Your task to perform on an android device: check the backup settings in the google photos Image 0: 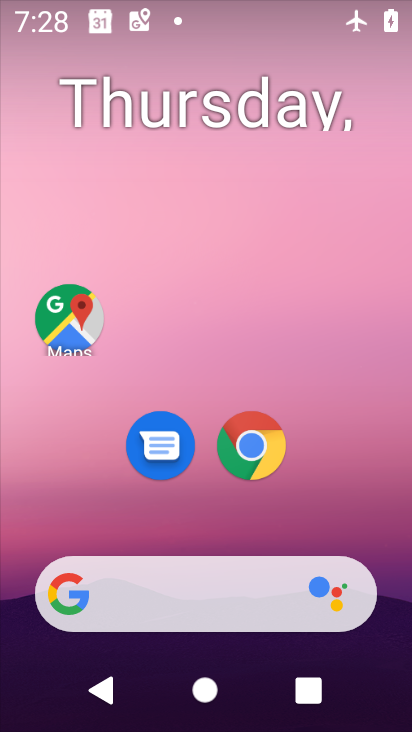
Step 0: drag from (377, 623) to (316, 50)
Your task to perform on an android device: check the backup settings in the google photos Image 1: 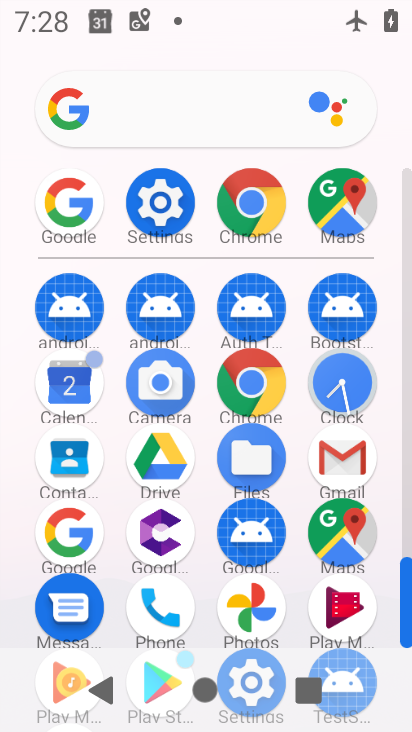
Step 1: click (245, 586)
Your task to perform on an android device: check the backup settings in the google photos Image 2: 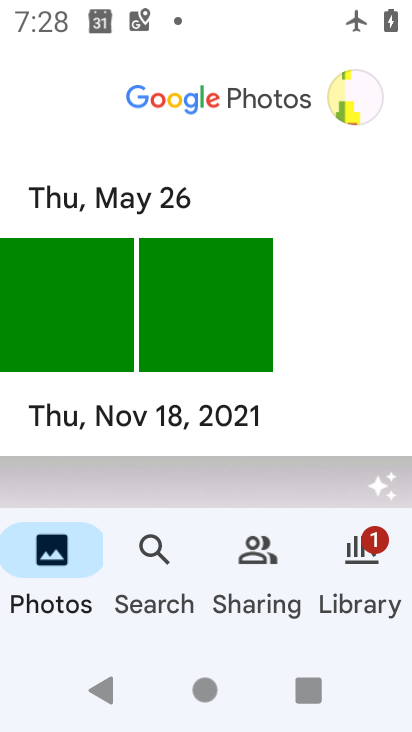
Step 2: click (350, 115)
Your task to perform on an android device: check the backup settings in the google photos Image 3: 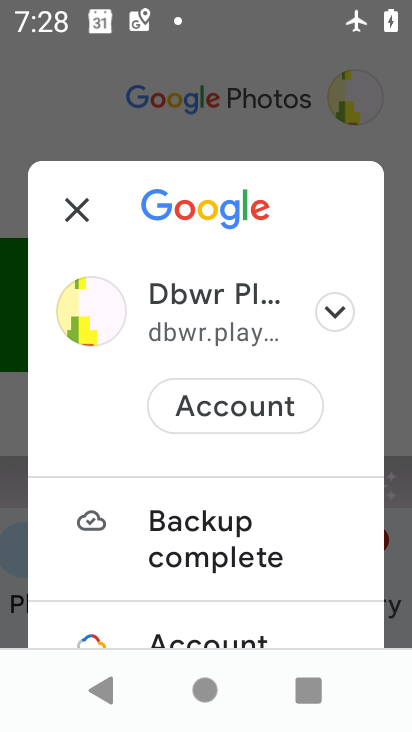
Step 3: click (176, 527)
Your task to perform on an android device: check the backup settings in the google photos Image 4: 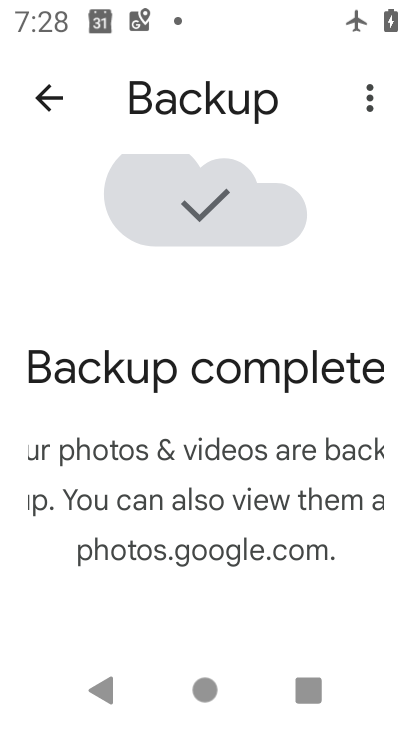
Step 4: click (368, 103)
Your task to perform on an android device: check the backup settings in the google photos Image 5: 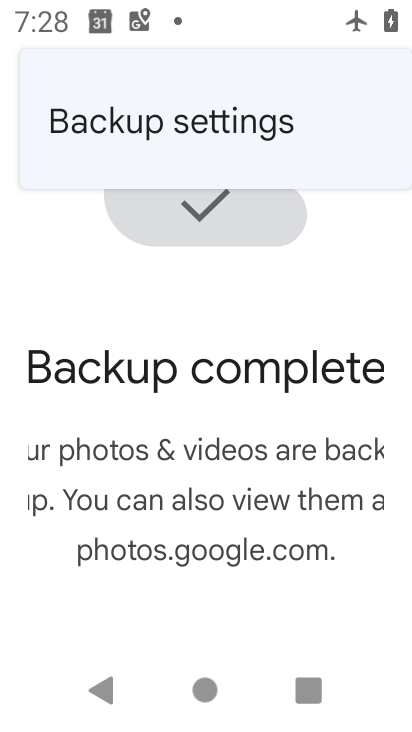
Step 5: click (229, 137)
Your task to perform on an android device: check the backup settings in the google photos Image 6: 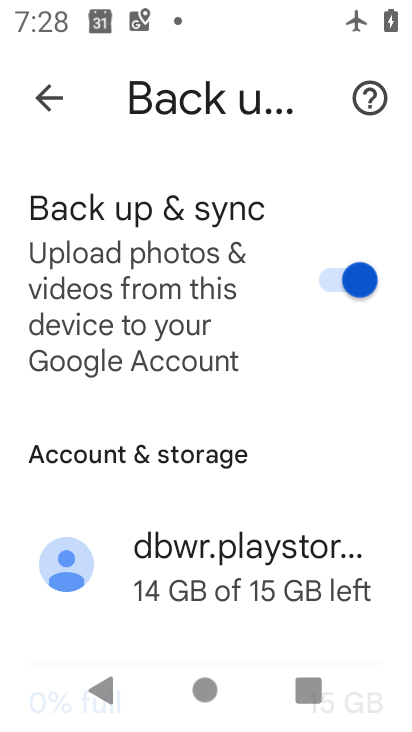
Step 6: task complete